Your task to perform on an android device: Search for 'The Girl on the Train' on Goodreads. Image 0: 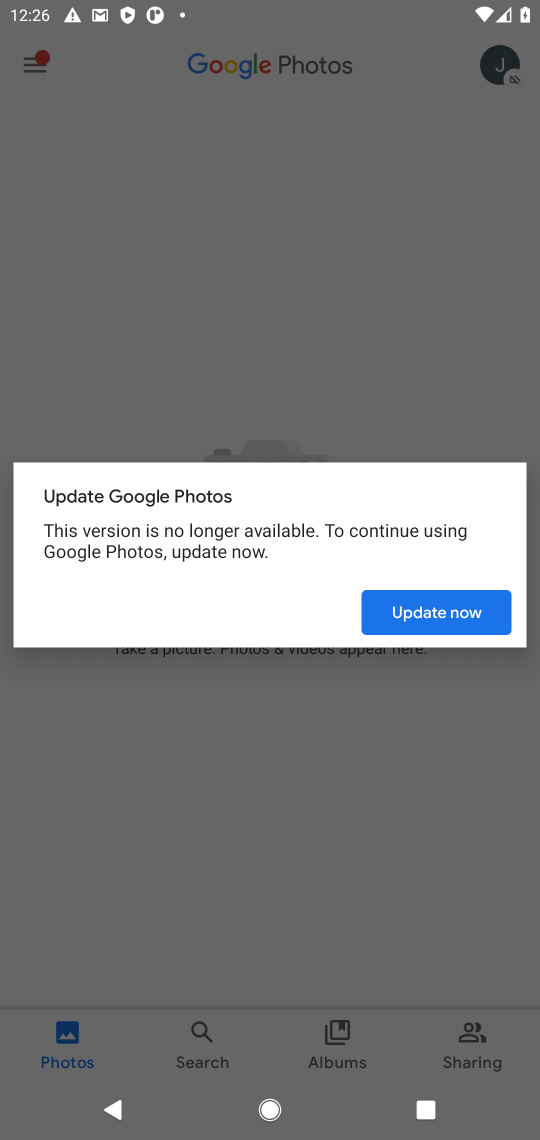
Step 0: press home button
Your task to perform on an android device: Search for 'The Girl on the Train' on Goodreads. Image 1: 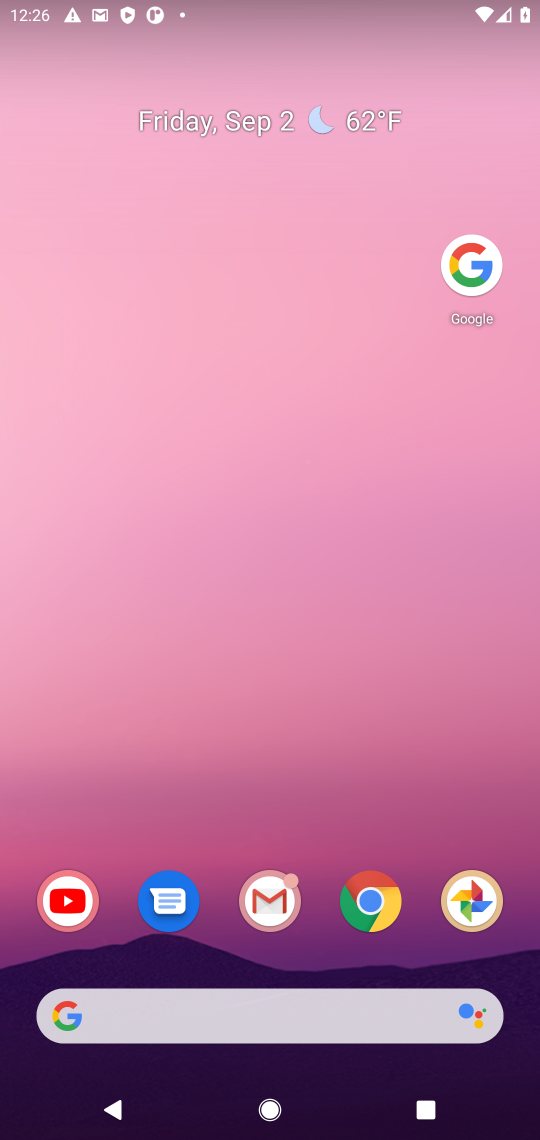
Step 1: click (470, 261)
Your task to perform on an android device: Search for 'The Girl on the Train' on Goodreads. Image 2: 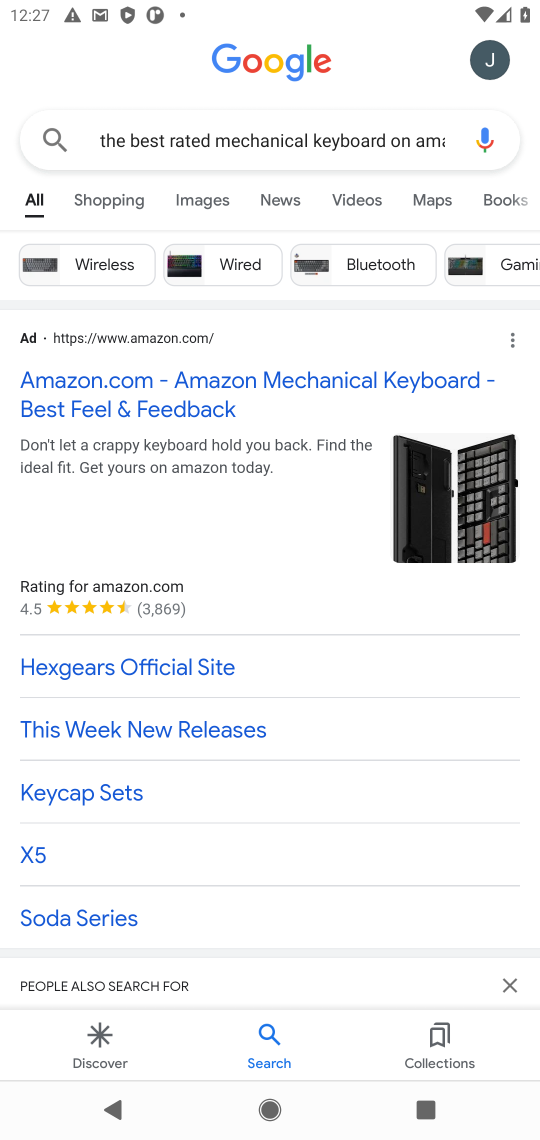
Step 2: click (348, 137)
Your task to perform on an android device: Search for 'The Girl on the Train' on Goodreads. Image 3: 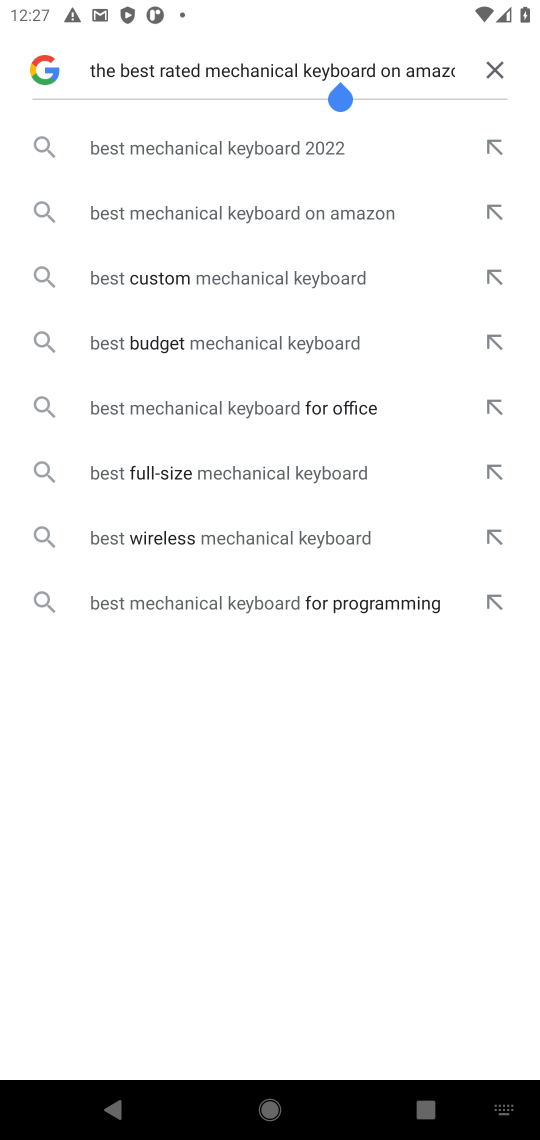
Step 3: click (496, 58)
Your task to perform on an android device: Search for 'The Girl on the Train' on Goodreads. Image 4: 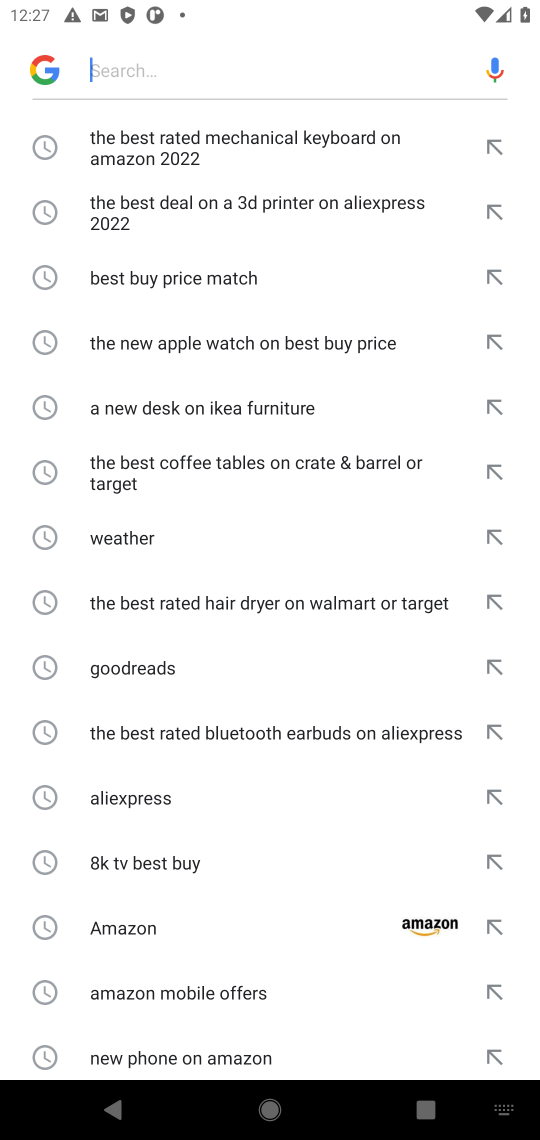
Step 4: click (238, 74)
Your task to perform on an android device: Search for 'The Girl on the Train' on Goodreads. Image 5: 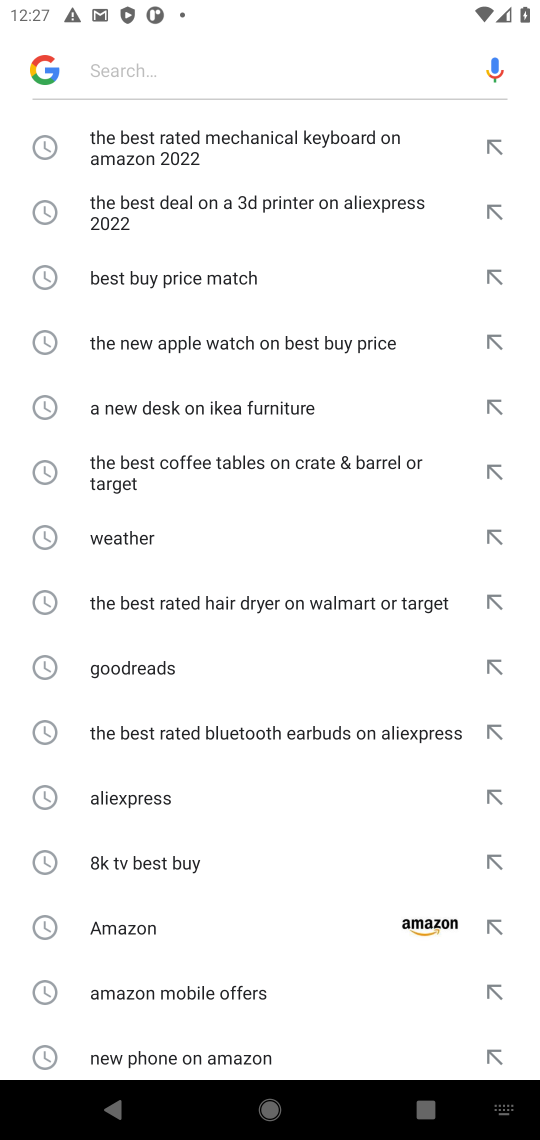
Step 5: type "The Girl on the Train' on Goodreads "
Your task to perform on an android device: Search for 'The Girl on the Train' on Goodreads. Image 6: 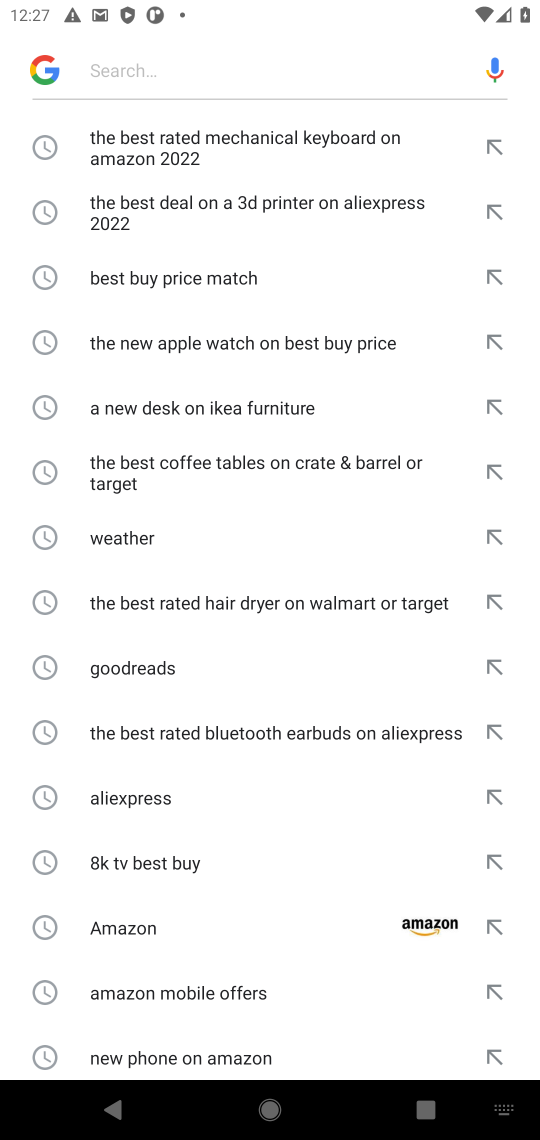
Step 6: click (163, 51)
Your task to perform on an android device: Search for 'The Girl on the Train' on Goodreads. Image 7: 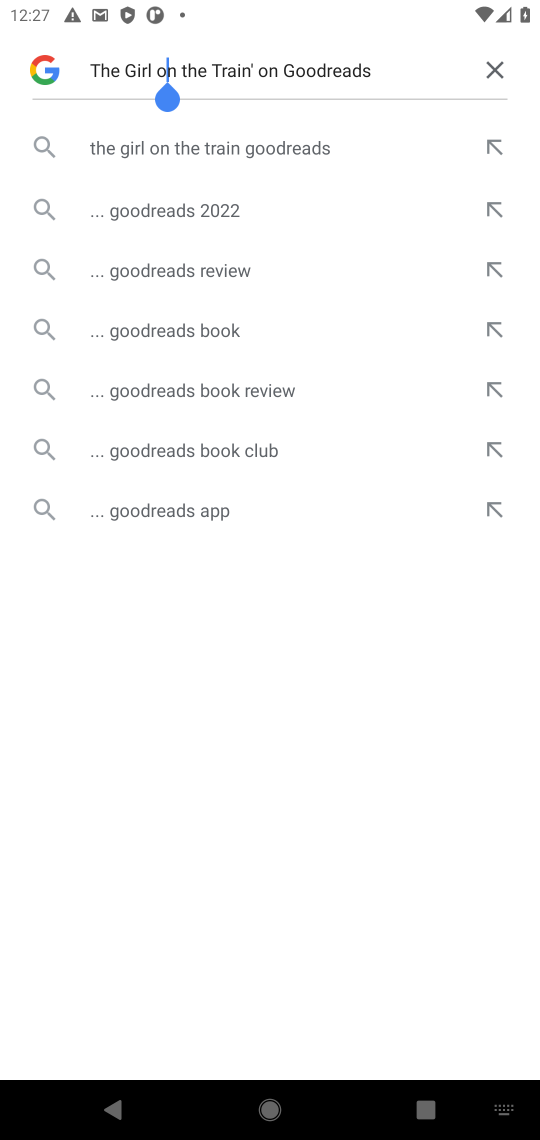
Step 7: click (238, 128)
Your task to perform on an android device: Search for 'The Girl on the Train' on Goodreads. Image 8: 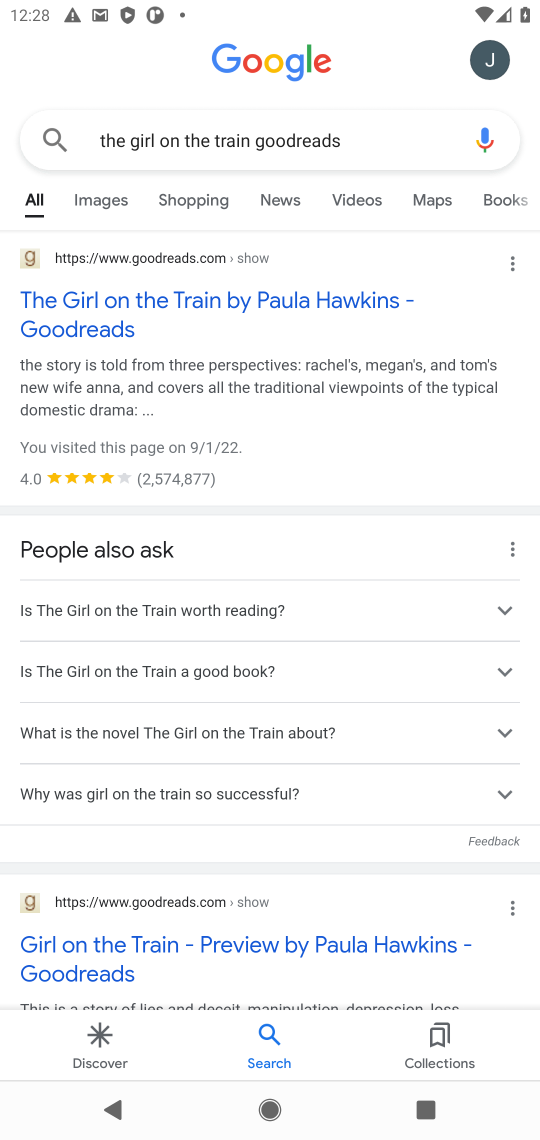
Step 8: click (267, 285)
Your task to perform on an android device: Search for 'The Girl on the Train' on Goodreads. Image 9: 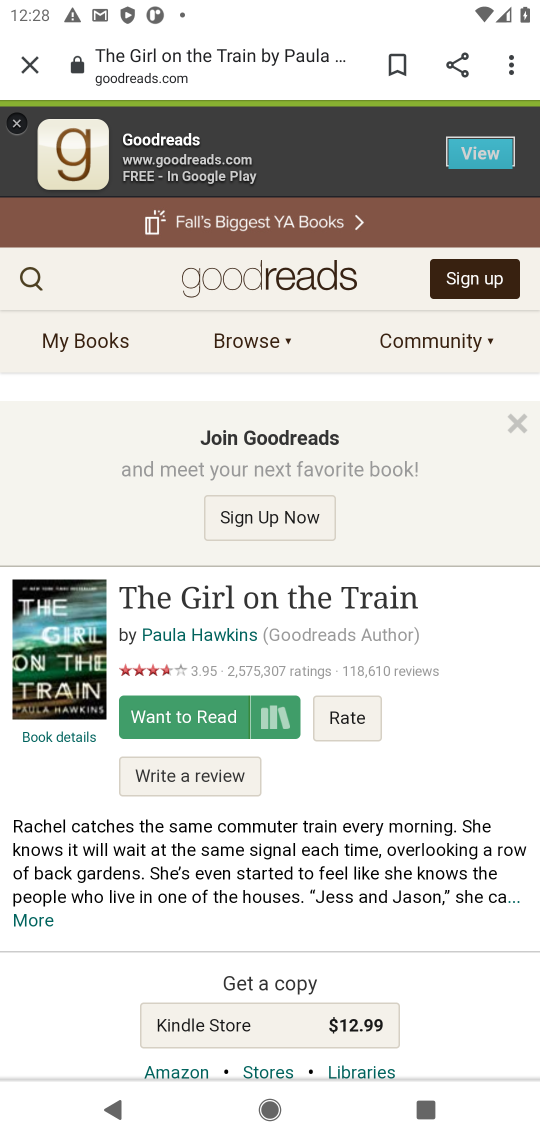
Step 9: click (29, 271)
Your task to perform on an android device: Search for 'The Girl on the Train' on Goodreads. Image 10: 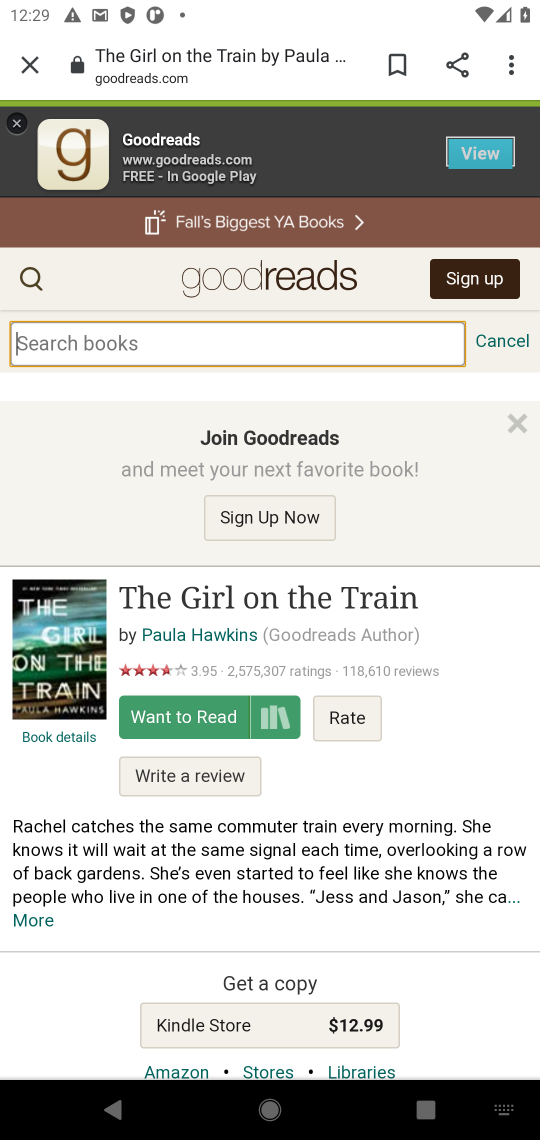
Step 10: task complete